Your task to perform on an android device: toggle show notifications on the lock screen Image 0: 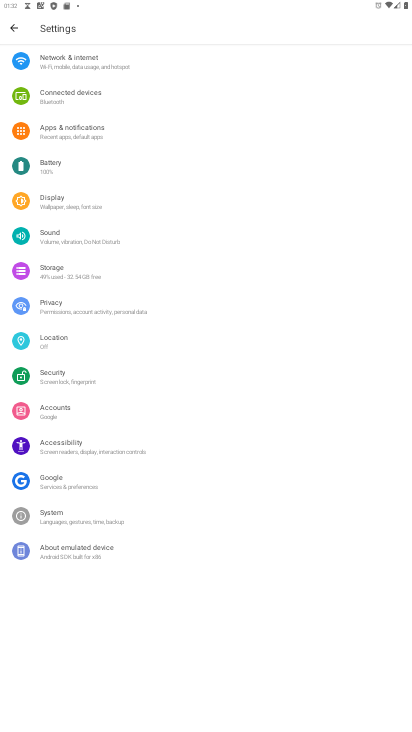
Step 0: click (86, 69)
Your task to perform on an android device: toggle show notifications on the lock screen Image 1: 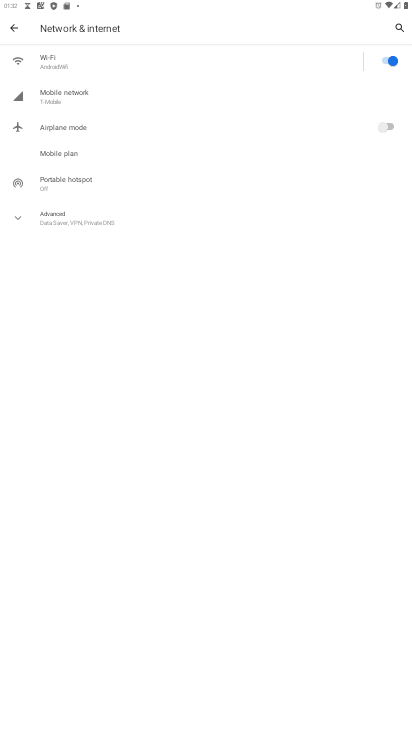
Step 1: click (15, 23)
Your task to perform on an android device: toggle show notifications on the lock screen Image 2: 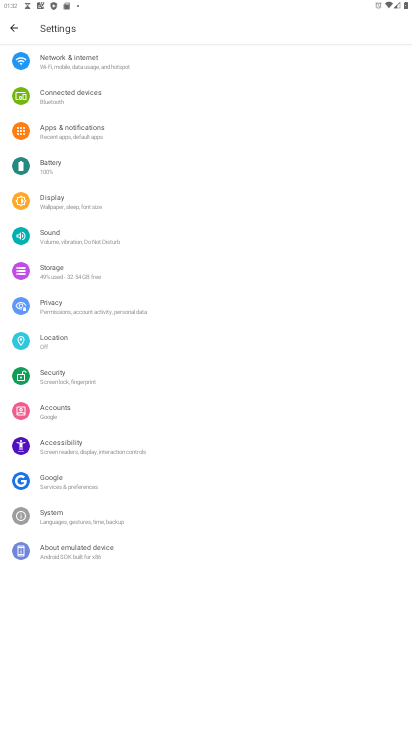
Step 2: click (100, 136)
Your task to perform on an android device: toggle show notifications on the lock screen Image 3: 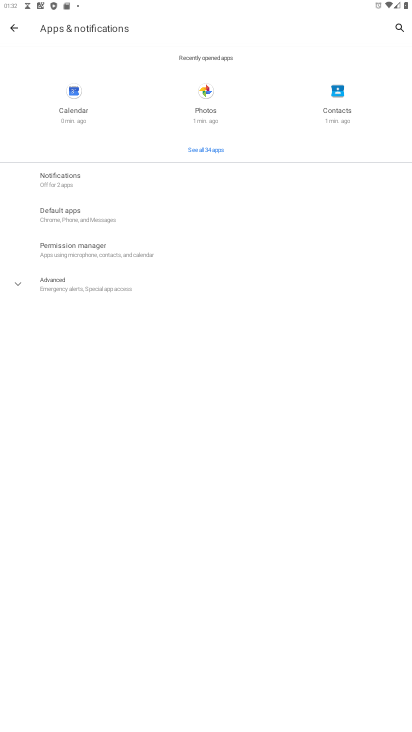
Step 3: click (91, 185)
Your task to perform on an android device: toggle show notifications on the lock screen Image 4: 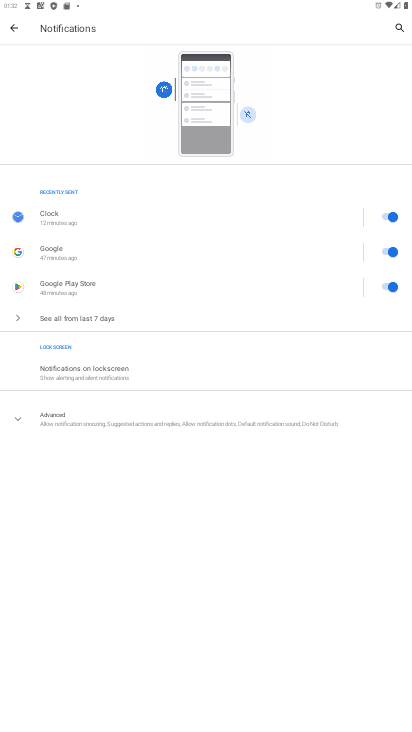
Step 4: click (150, 376)
Your task to perform on an android device: toggle show notifications on the lock screen Image 5: 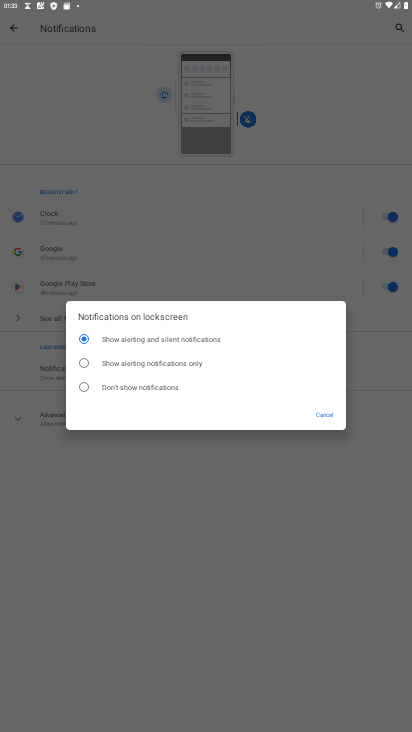
Step 5: click (138, 384)
Your task to perform on an android device: toggle show notifications on the lock screen Image 6: 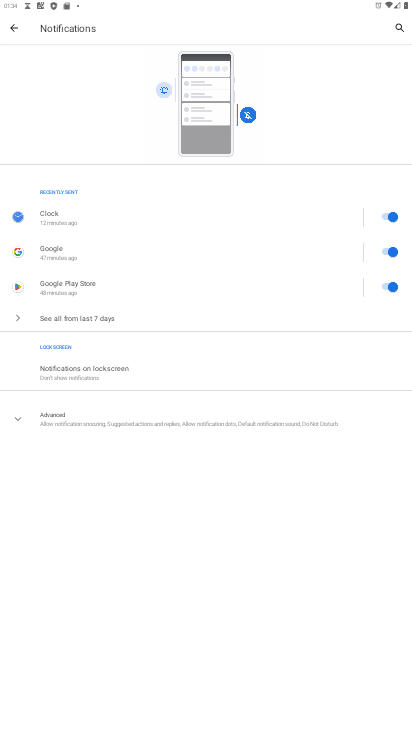
Step 6: task complete